Your task to perform on an android device: Show me the alarms in the clock app Image 0: 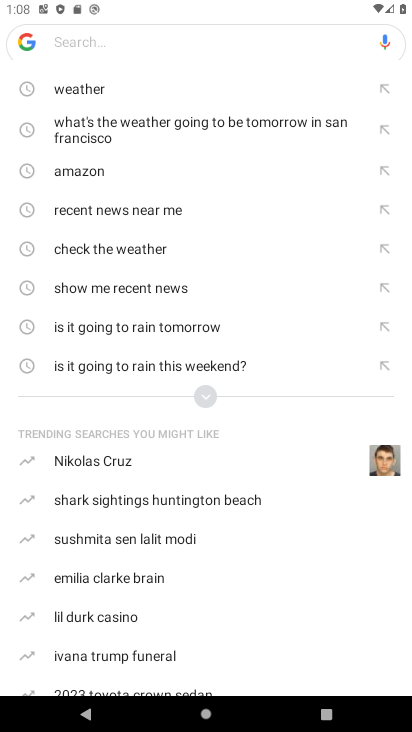
Step 0: press home button
Your task to perform on an android device: Show me the alarms in the clock app Image 1: 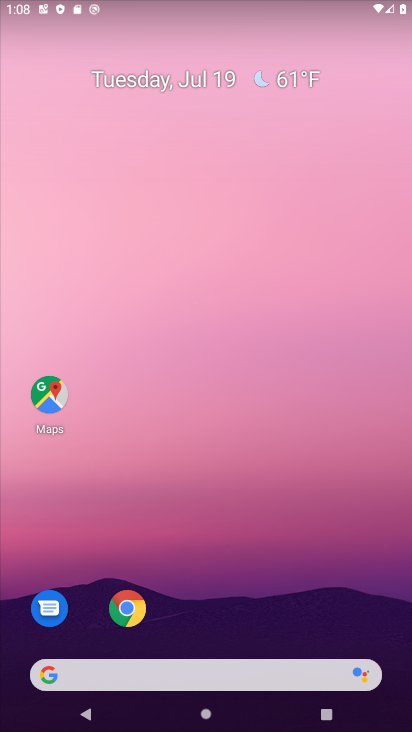
Step 1: drag from (186, 610) to (170, 59)
Your task to perform on an android device: Show me the alarms in the clock app Image 2: 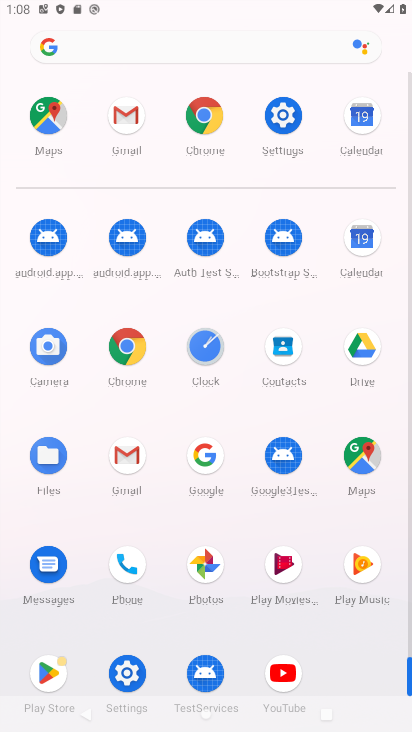
Step 2: click (208, 356)
Your task to perform on an android device: Show me the alarms in the clock app Image 3: 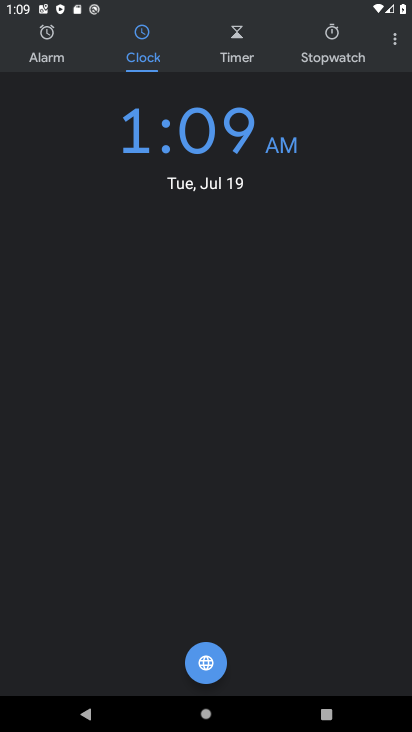
Step 3: click (39, 67)
Your task to perform on an android device: Show me the alarms in the clock app Image 4: 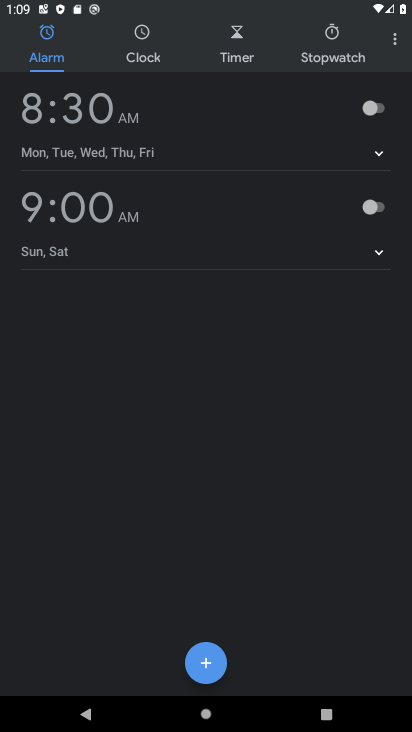
Step 4: task complete